Your task to perform on an android device: Go to Yahoo.com Image 0: 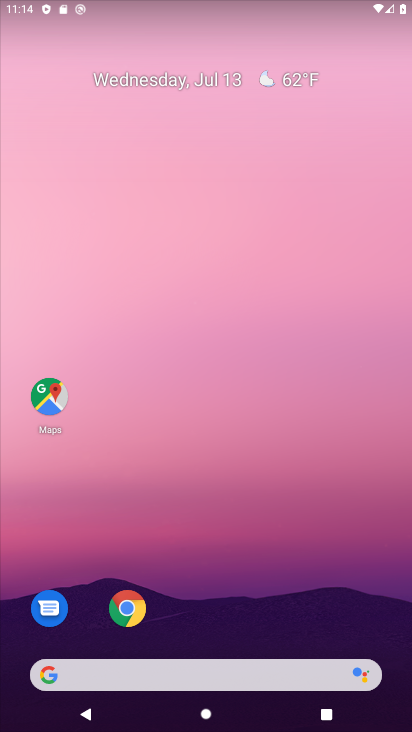
Step 0: drag from (252, 724) to (242, 265)
Your task to perform on an android device: Go to Yahoo.com Image 1: 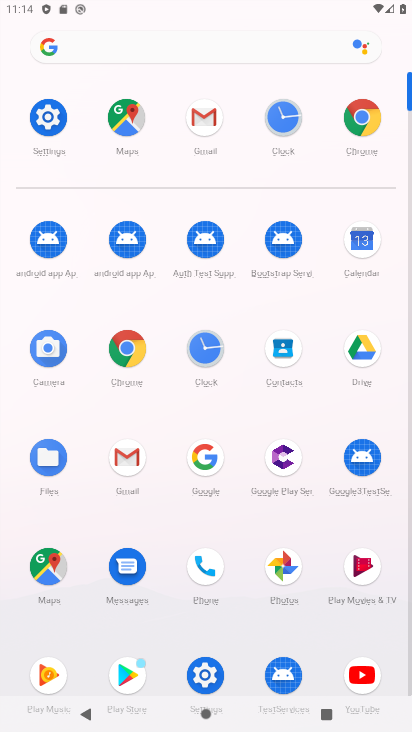
Step 1: click (128, 348)
Your task to perform on an android device: Go to Yahoo.com Image 2: 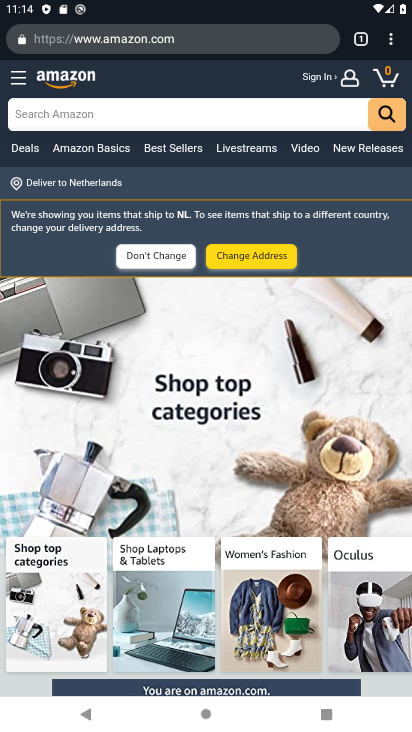
Step 2: click (391, 43)
Your task to perform on an android device: Go to Yahoo.com Image 3: 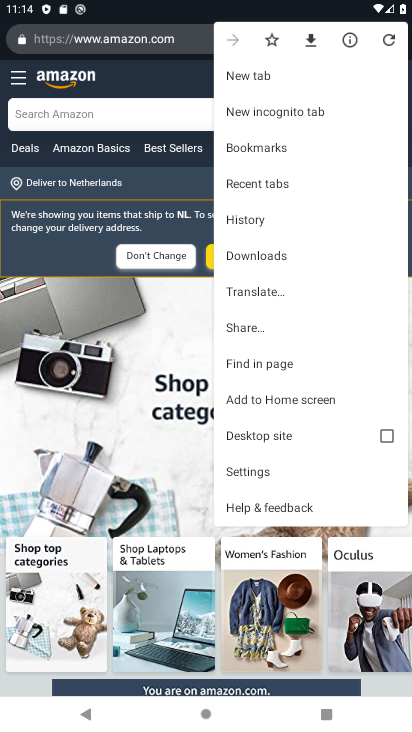
Step 3: click (237, 71)
Your task to perform on an android device: Go to Yahoo.com Image 4: 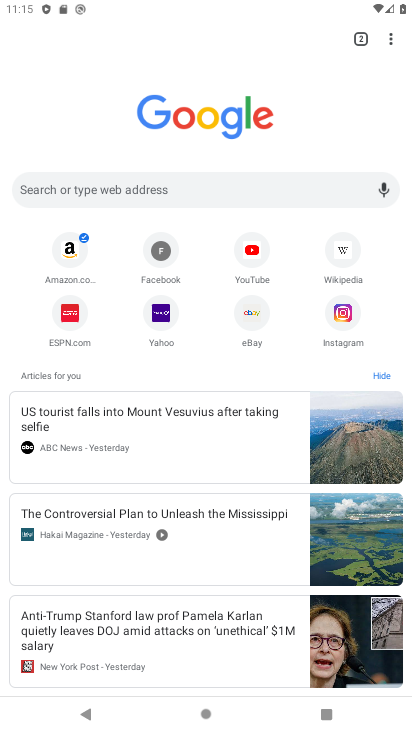
Step 4: click (162, 319)
Your task to perform on an android device: Go to Yahoo.com Image 5: 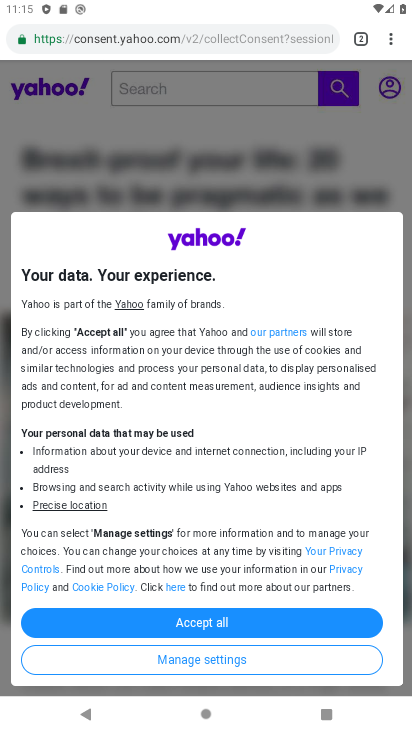
Step 5: task complete